Your task to perform on an android device: toggle pop-ups in chrome Image 0: 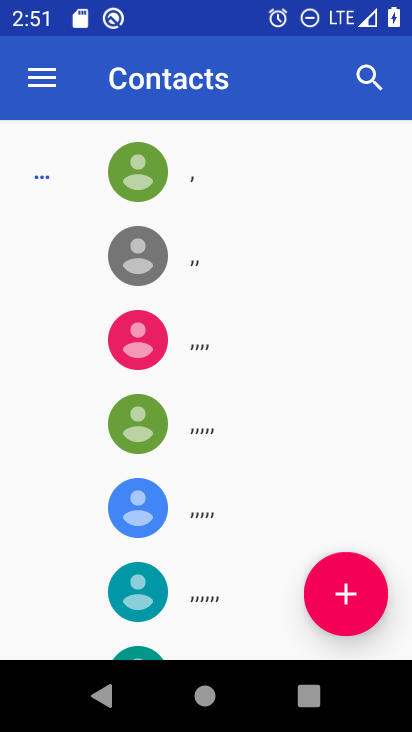
Step 0: press back button
Your task to perform on an android device: toggle pop-ups in chrome Image 1: 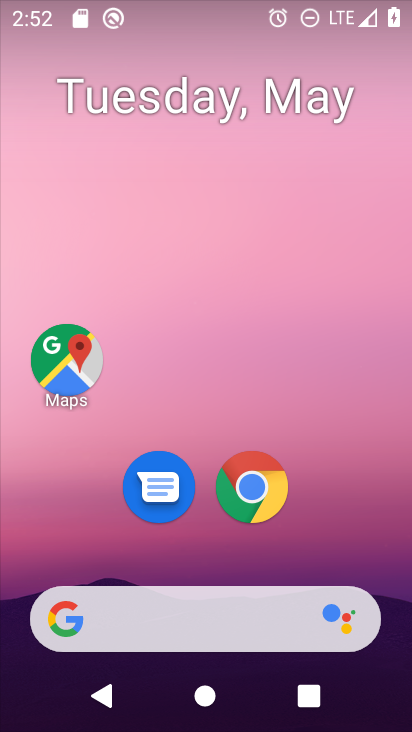
Step 1: click (249, 492)
Your task to perform on an android device: toggle pop-ups in chrome Image 2: 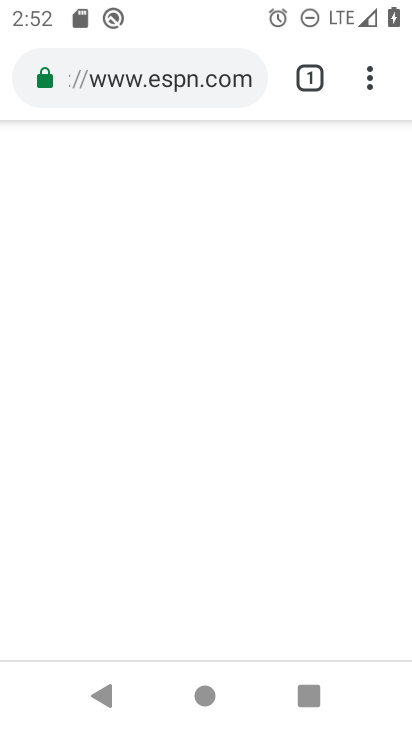
Step 2: click (374, 77)
Your task to perform on an android device: toggle pop-ups in chrome Image 3: 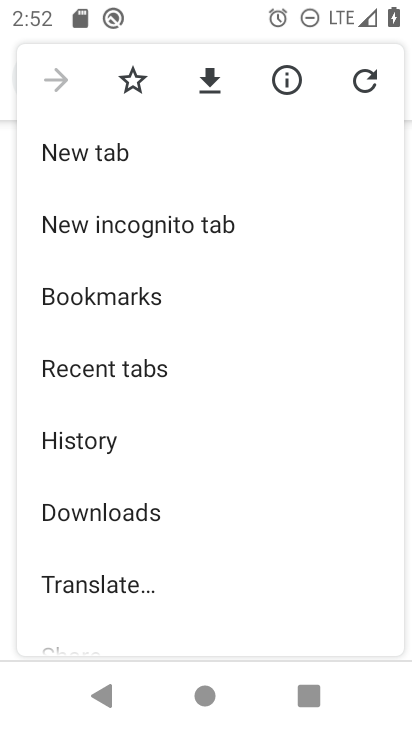
Step 3: drag from (101, 557) to (239, 188)
Your task to perform on an android device: toggle pop-ups in chrome Image 4: 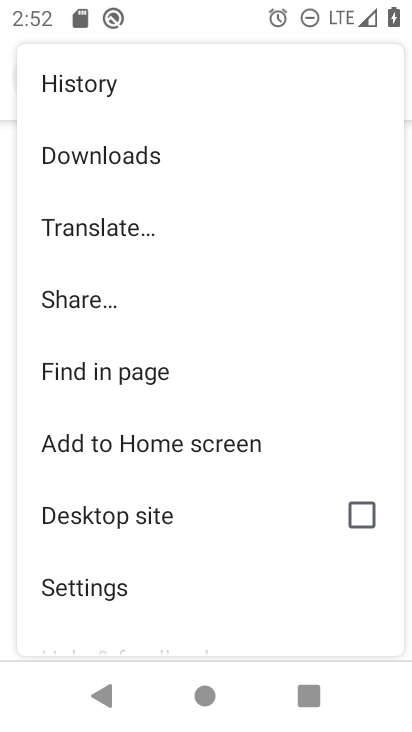
Step 4: click (115, 575)
Your task to perform on an android device: toggle pop-ups in chrome Image 5: 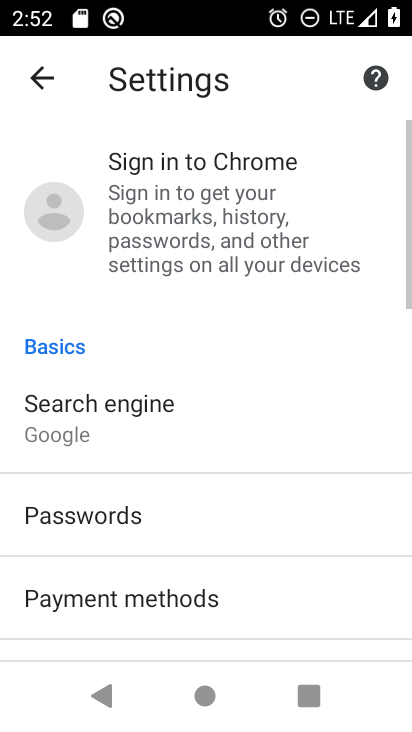
Step 5: drag from (30, 380) to (168, 144)
Your task to perform on an android device: toggle pop-ups in chrome Image 6: 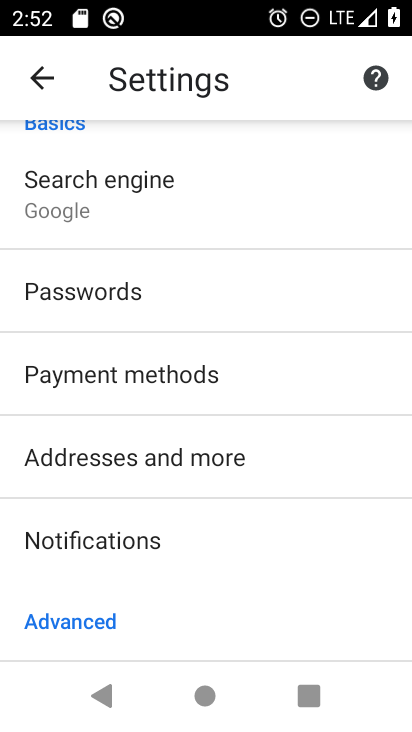
Step 6: drag from (60, 538) to (213, 205)
Your task to perform on an android device: toggle pop-ups in chrome Image 7: 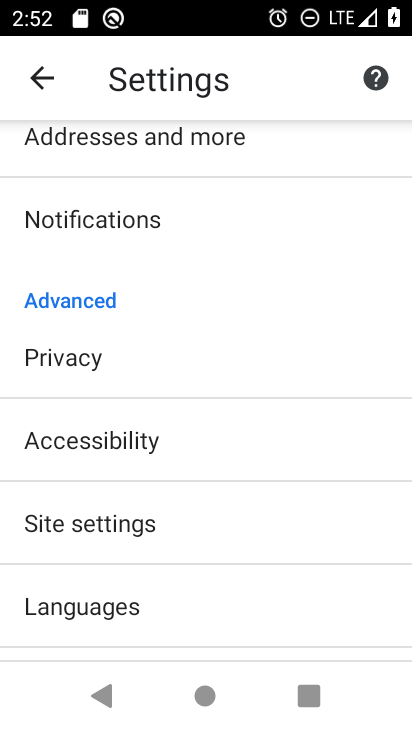
Step 7: drag from (10, 592) to (97, 297)
Your task to perform on an android device: toggle pop-ups in chrome Image 8: 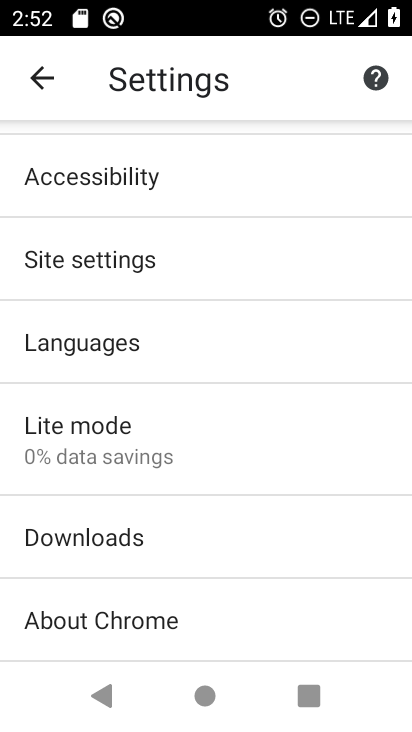
Step 8: drag from (20, 507) to (173, 253)
Your task to perform on an android device: toggle pop-ups in chrome Image 9: 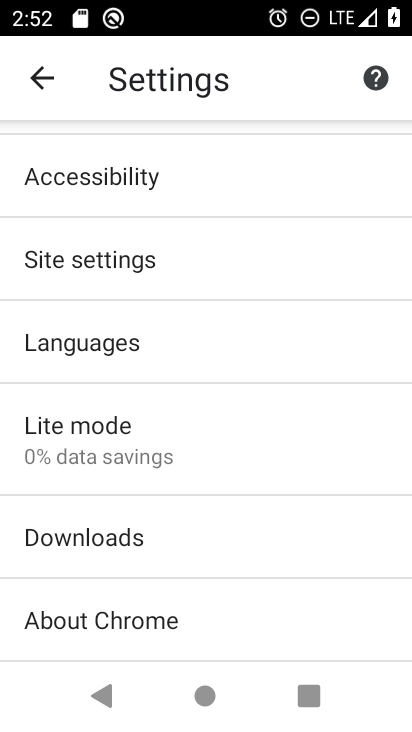
Step 9: drag from (16, 558) to (228, 147)
Your task to perform on an android device: toggle pop-ups in chrome Image 10: 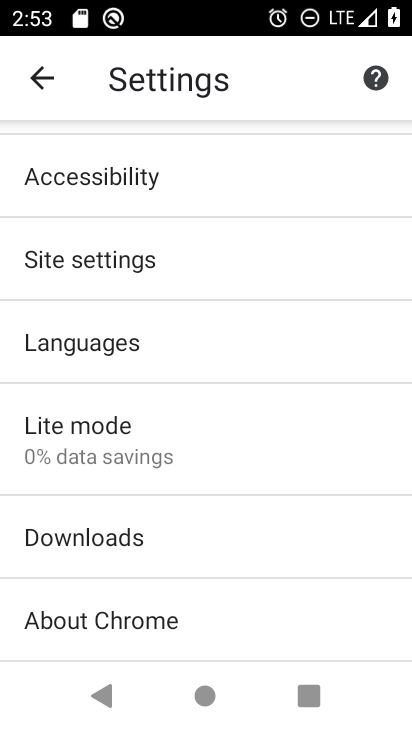
Step 10: click (193, 262)
Your task to perform on an android device: toggle pop-ups in chrome Image 11: 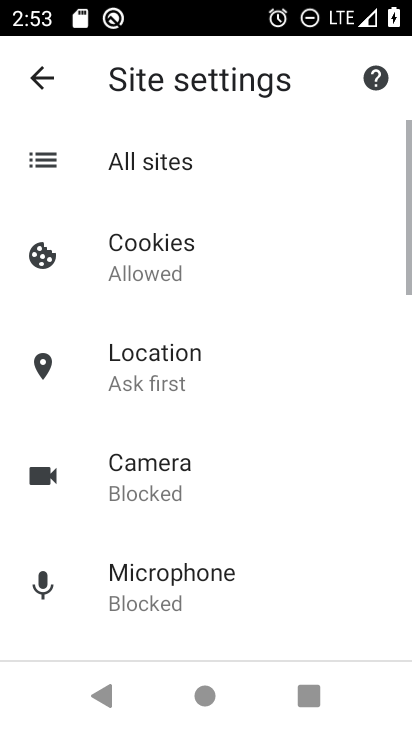
Step 11: drag from (53, 654) to (253, 158)
Your task to perform on an android device: toggle pop-ups in chrome Image 12: 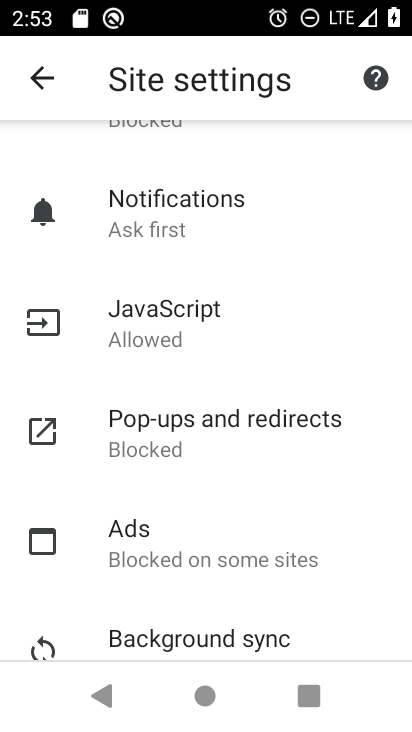
Step 12: click (168, 426)
Your task to perform on an android device: toggle pop-ups in chrome Image 13: 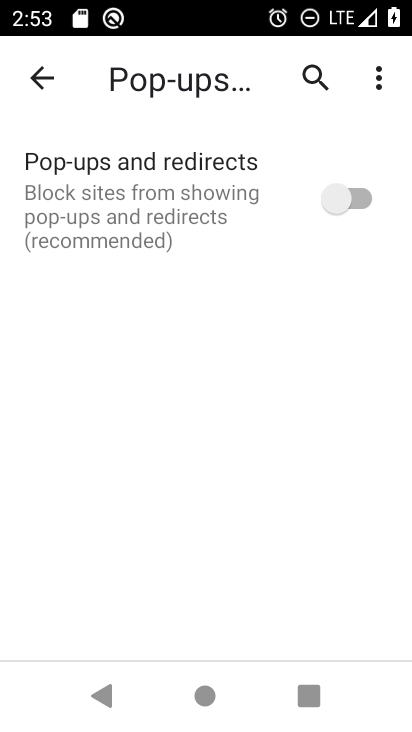
Step 13: click (337, 208)
Your task to perform on an android device: toggle pop-ups in chrome Image 14: 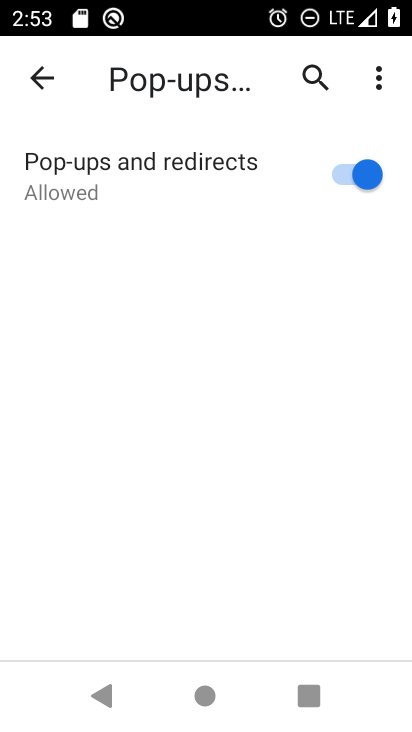
Step 14: task complete